Your task to perform on an android device: toggle airplane mode Image 0: 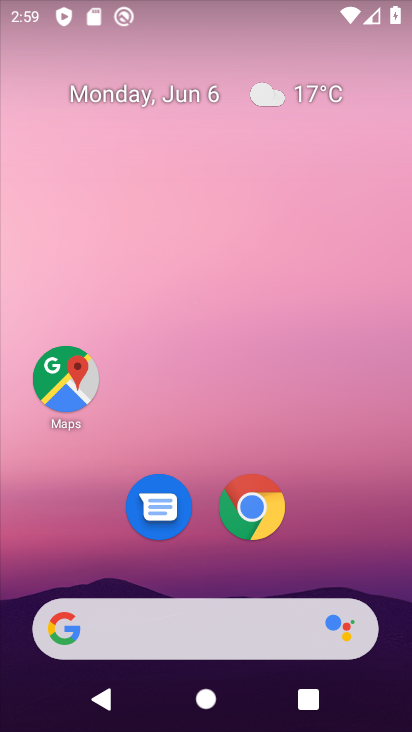
Step 0: drag from (321, 106) to (299, 368)
Your task to perform on an android device: toggle airplane mode Image 1: 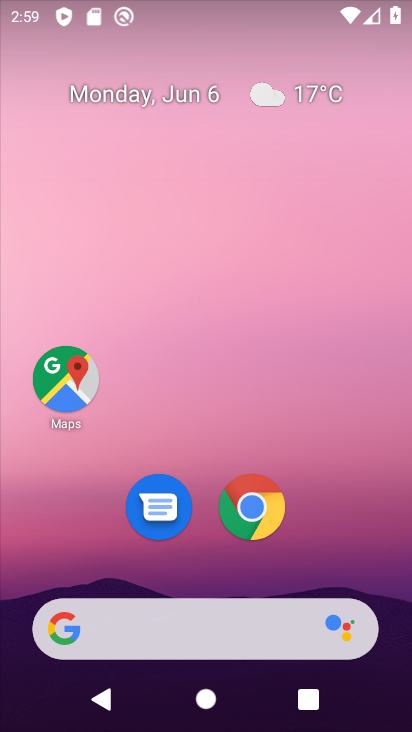
Step 1: drag from (281, 1) to (303, 688)
Your task to perform on an android device: toggle airplane mode Image 2: 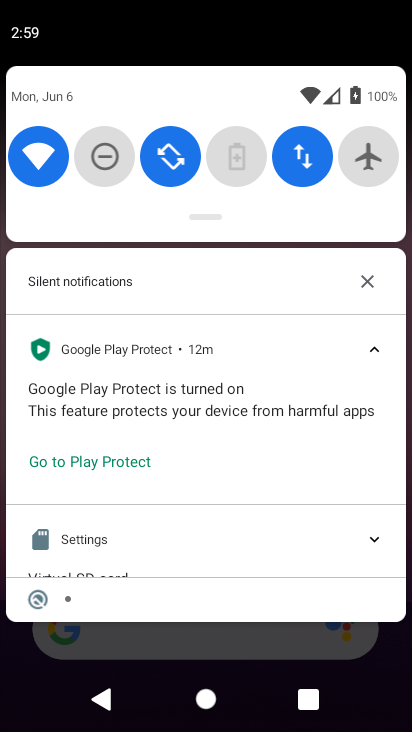
Step 2: click (368, 160)
Your task to perform on an android device: toggle airplane mode Image 3: 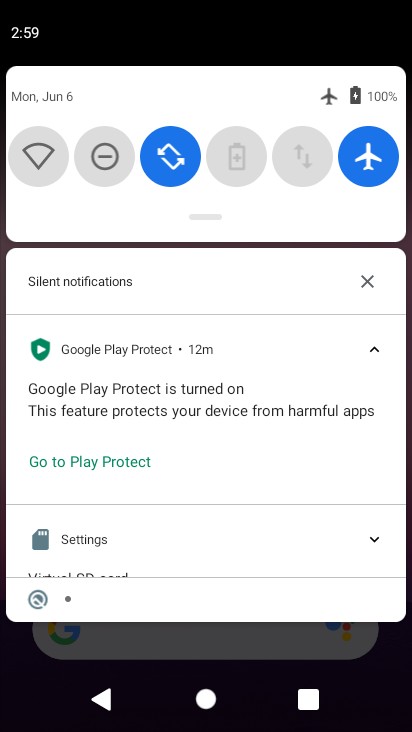
Step 3: task complete